Your task to perform on an android device: Open settings on Google Maps Image 0: 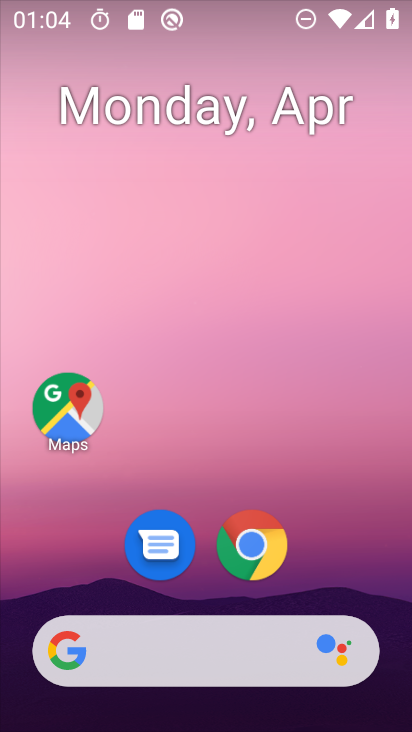
Step 0: drag from (326, 540) to (361, 222)
Your task to perform on an android device: Open settings on Google Maps Image 1: 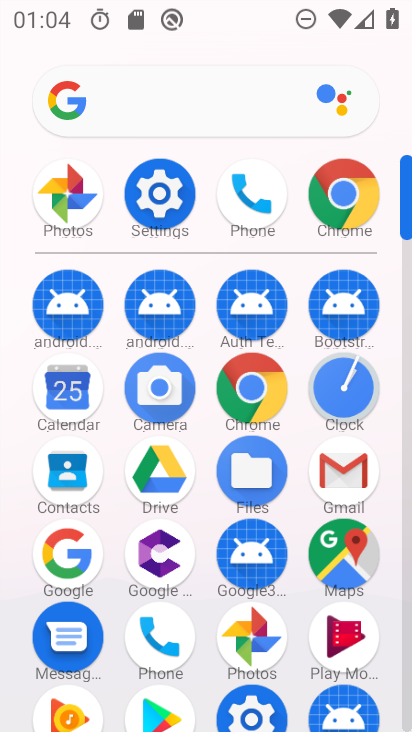
Step 1: click (333, 547)
Your task to perform on an android device: Open settings on Google Maps Image 2: 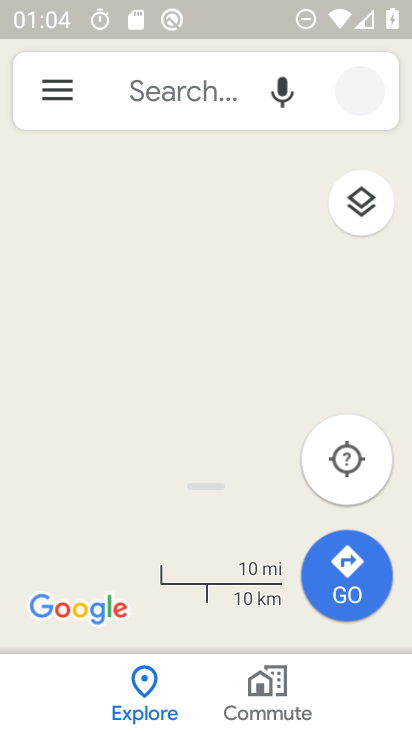
Step 2: click (62, 94)
Your task to perform on an android device: Open settings on Google Maps Image 3: 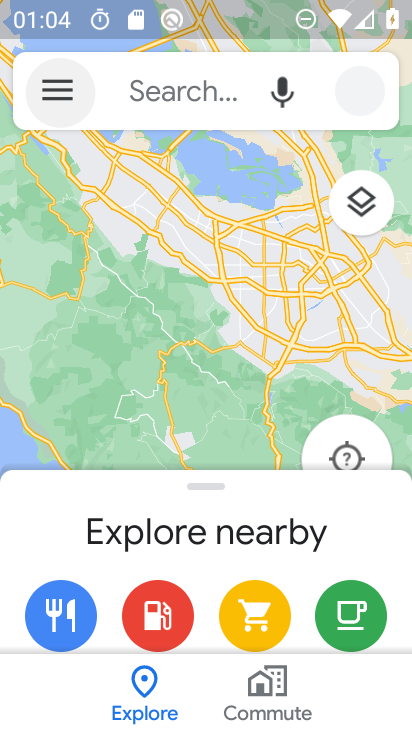
Step 3: click (62, 94)
Your task to perform on an android device: Open settings on Google Maps Image 4: 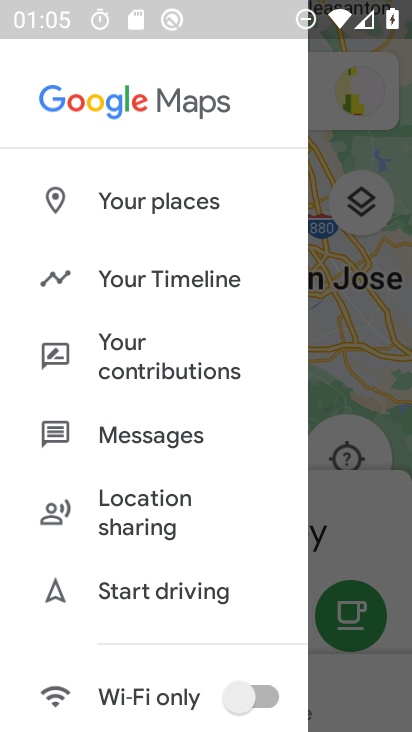
Step 4: drag from (137, 602) to (211, 242)
Your task to perform on an android device: Open settings on Google Maps Image 5: 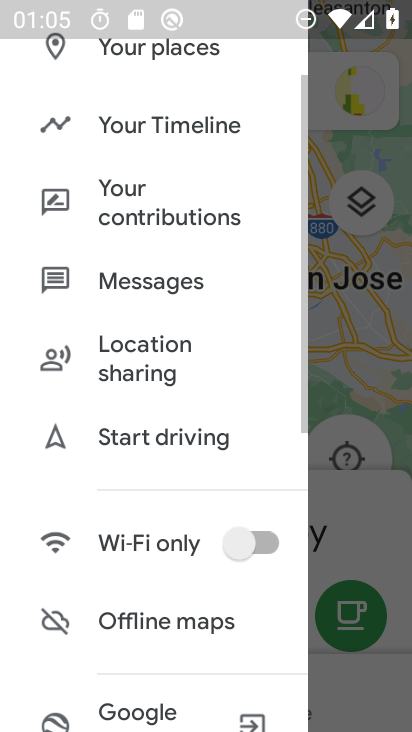
Step 5: drag from (142, 559) to (252, 65)
Your task to perform on an android device: Open settings on Google Maps Image 6: 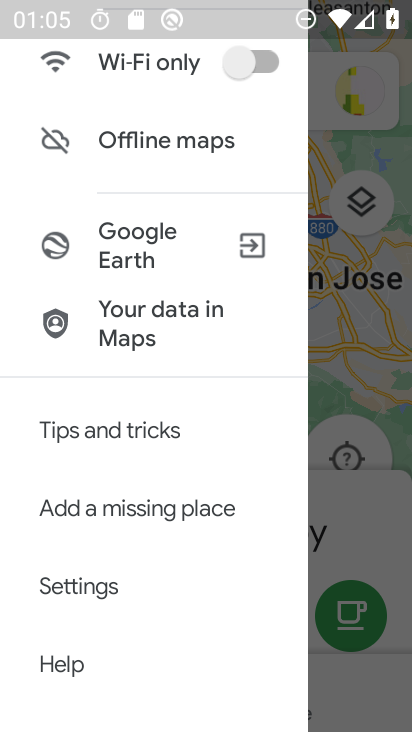
Step 6: click (87, 582)
Your task to perform on an android device: Open settings on Google Maps Image 7: 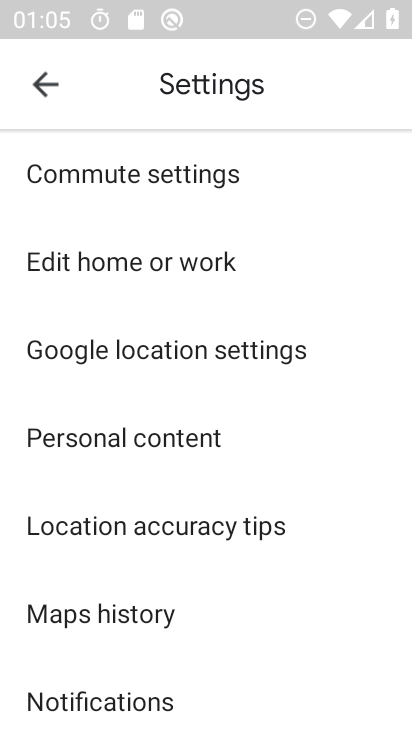
Step 7: task complete